Your task to perform on an android device: Open internet settings Image 0: 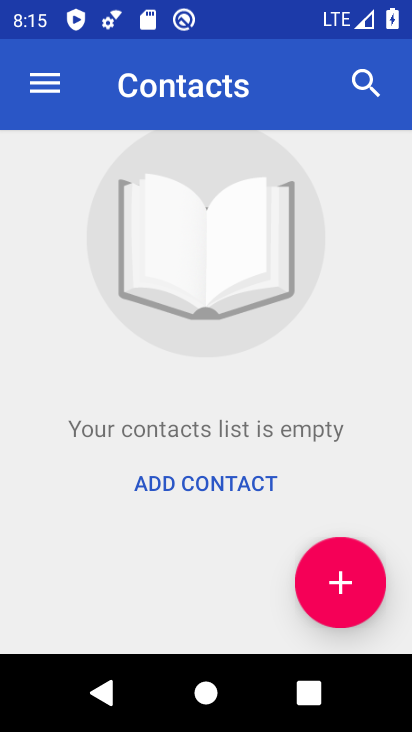
Step 0: drag from (224, 505) to (271, 220)
Your task to perform on an android device: Open internet settings Image 1: 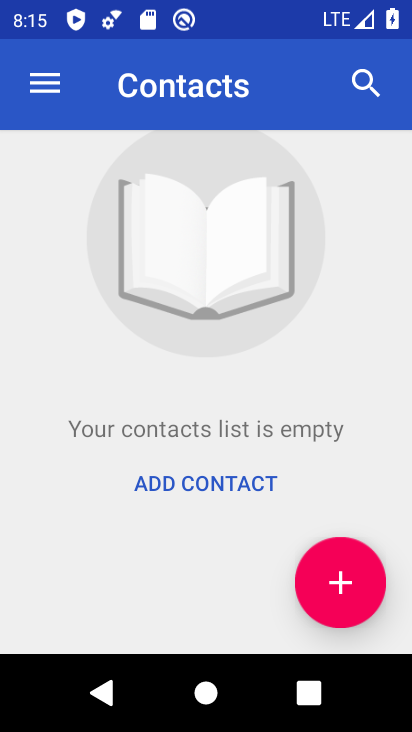
Step 1: click (194, 404)
Your task to perform on an android device: Open internet settings Image 2: 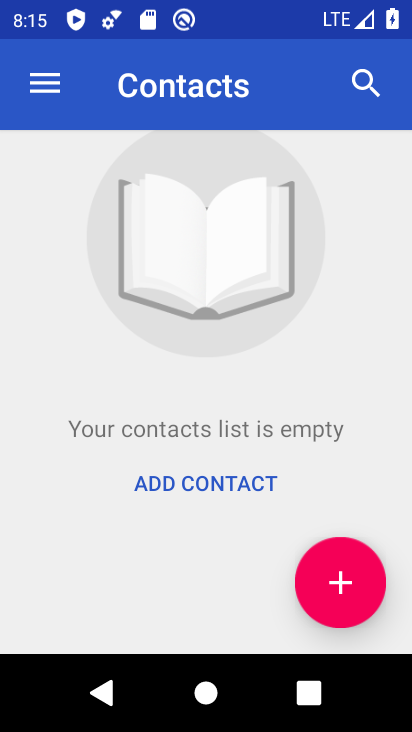
Step 2: press home button
Your task to perform on an android device: Open internet settings Image 3: 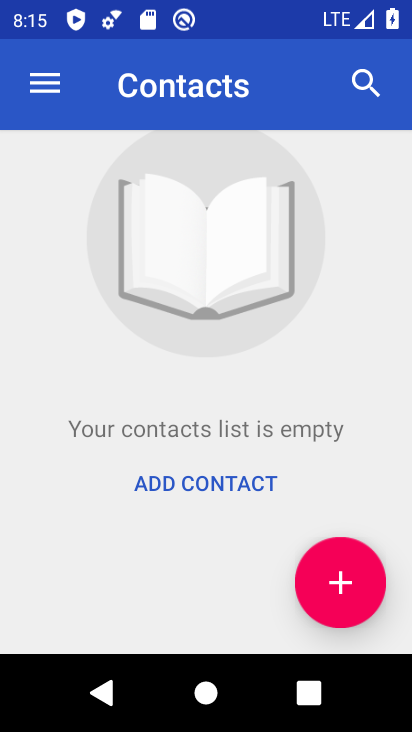
Step 3: press home button
Your task to perform on an android device: Open internet settings Image 4: 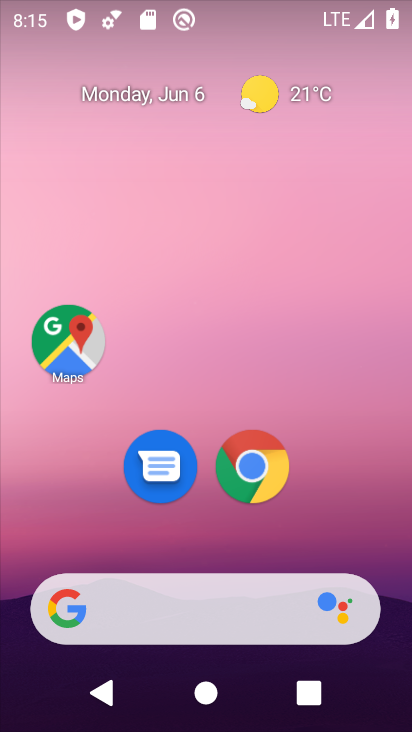
Step 4: drag from (189, 530) to (240, 52)
Your task to perform on an android device: Open internet settings Image 5: 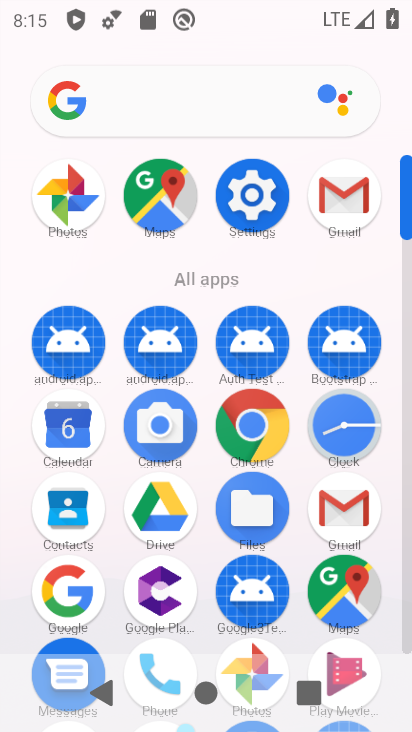
Step 5: click (241, 213)
Your task to perform on an android device: Open internet settings Image 6: 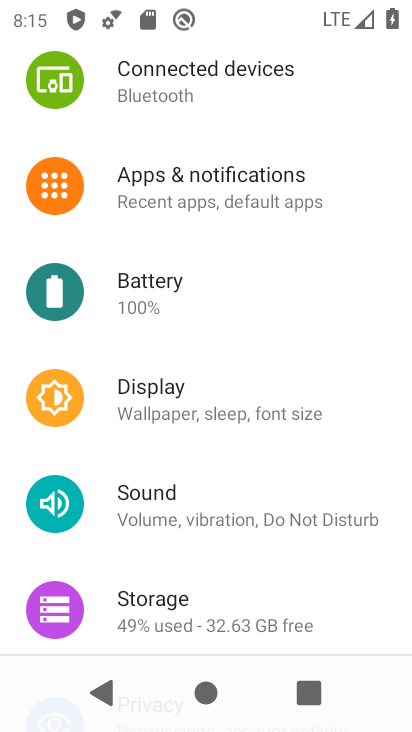
Step 6: drag from (277, 193) to (295, 714)
Your task to perform on an android device: Open internet settings Image 7: 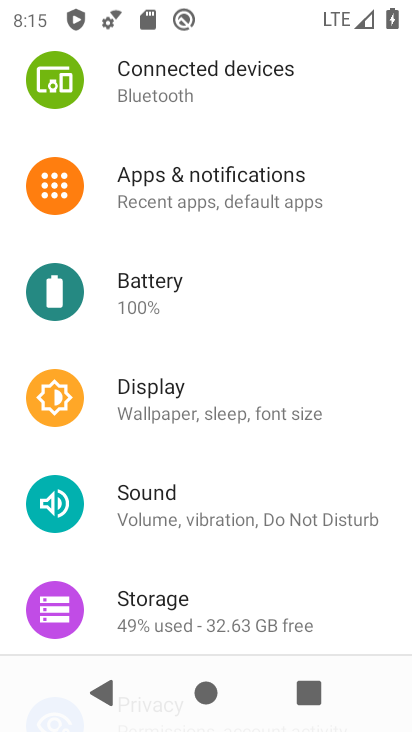
Step 7: drag from (335, 116) to (344, 643)
Your task to perform on an android device: Open internet settings Image 8: 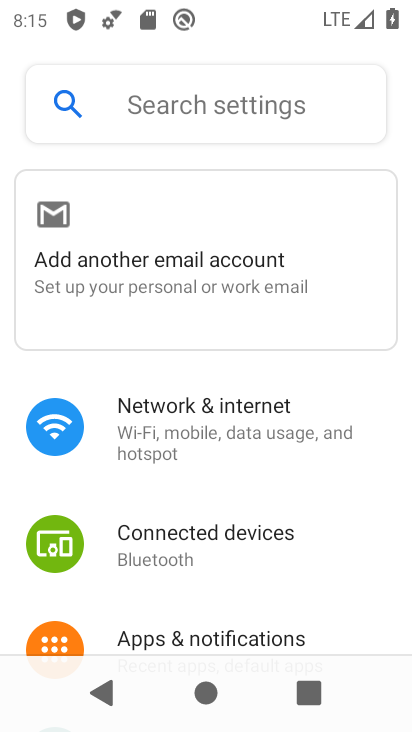
Step 8: click (231, 433)
Your task to perform on an android device: Open internet settings Image 9: 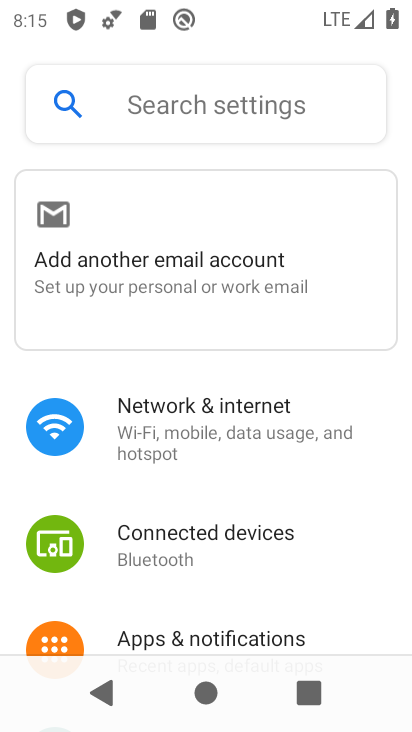
Step 9: click (231, 432)
Your task to perform on an android device: Open internet settings Image 10: 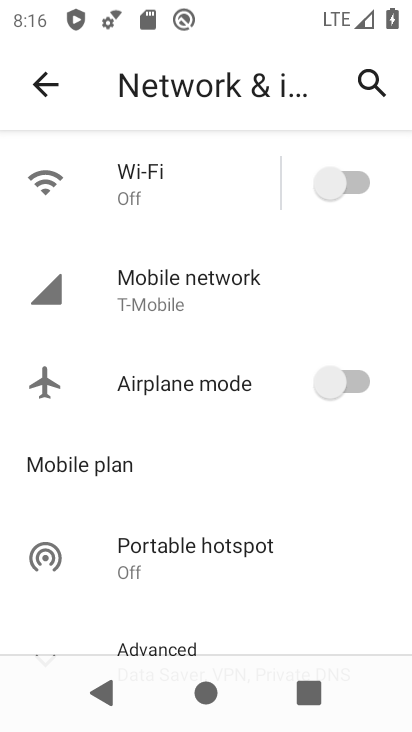
Step 10: task complete